Your task to perform on an android device: Open Yahoo.com Image 0: 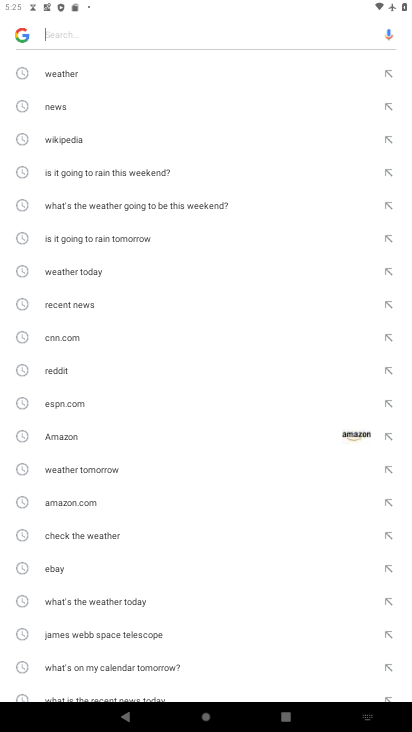
Step 0: press home button
Your task to perform on an android device: Open Yahoo.com Image 1: 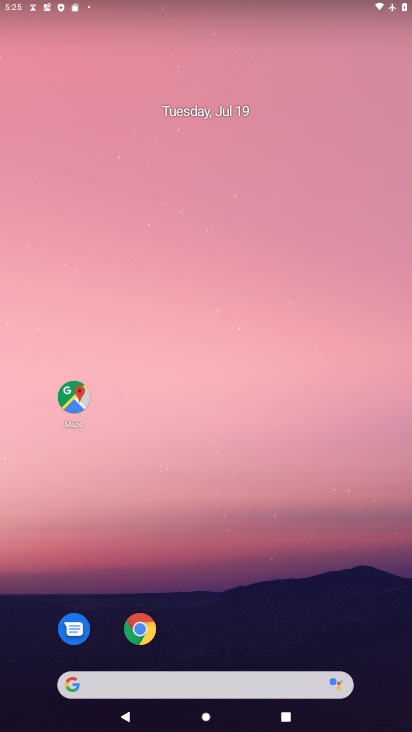
Step 1: click (68, 689)
Your task to perform on an android device: Open Yahoo.com Image 2: 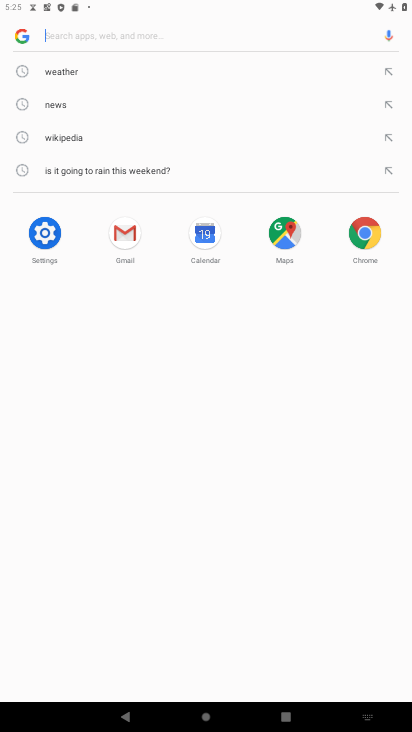
Step 2: type "Yahoo.com"
Your task to perform on an android device: Open Yahoo.com Image 3: 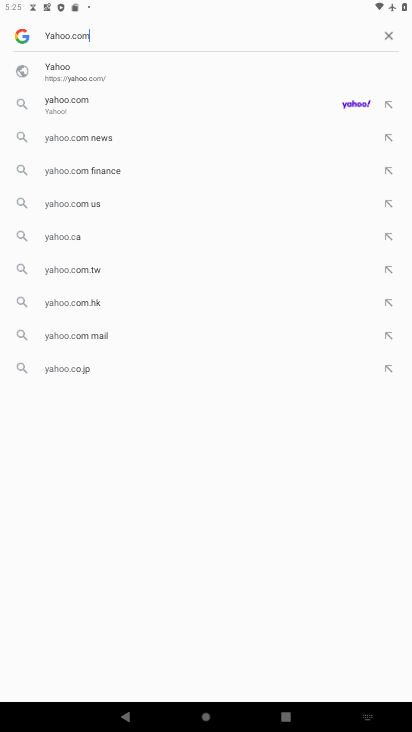
Step 3: press enter
Your task to perform on an android device: Open Yahoo.com Image 4: 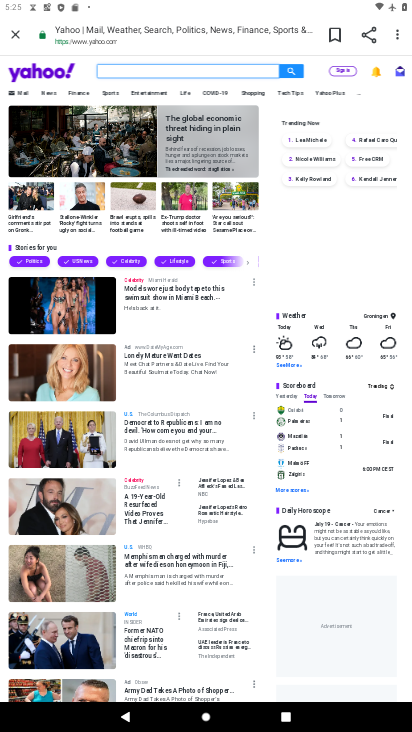
Step 4: task complete